Your task to perform on an android device: manage bookmarks in the chrome app Image 0: 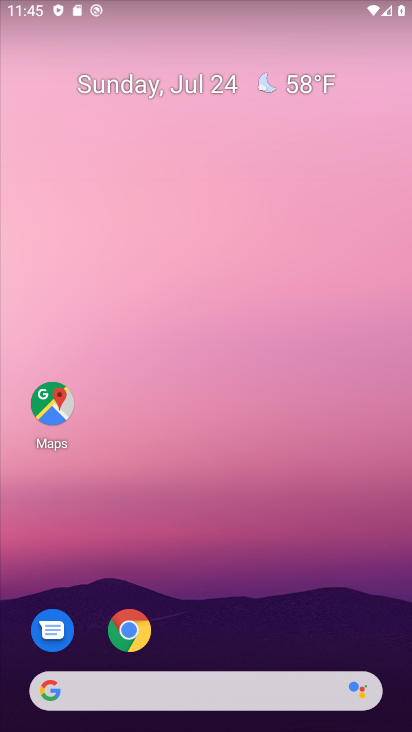
Step 0: drag from (229, 492) to (176, 210)
Your task to perform on an android device: manage bookmarks in the chrome app Image 1: 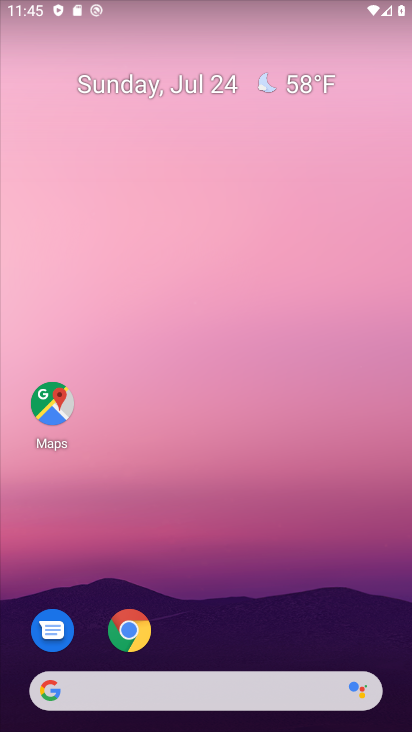
Step 1: drag from (304, 643) to (294, 17)
Your task to perform on an android device: manage bookmarks in the chrome app Image 2: 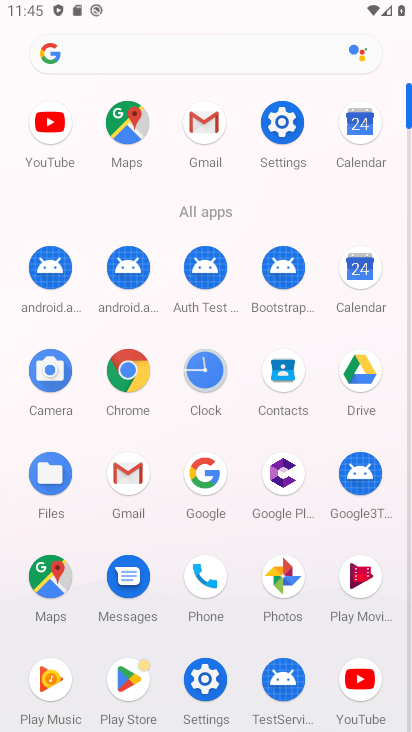
Step 2: click (132, 378)
Your task to perform on an android device: manage bookmarks in the chrome app Image 3: 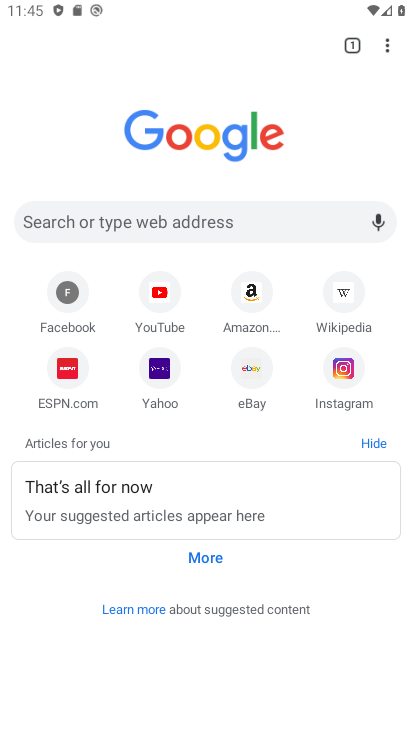
Step 3: click (394, 40)
Your task to perform on an android device: manage bookmarks in the chrome app Image 4: 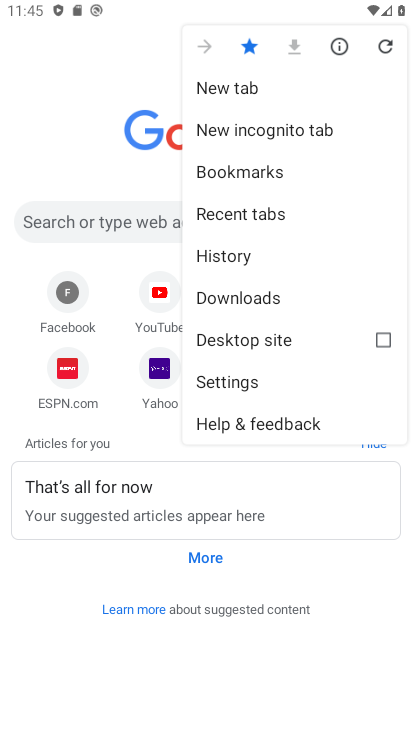
Step 4: click (285, 172)
Your task to perform on an android device: manage bookmarks in the chrome app Image 5: 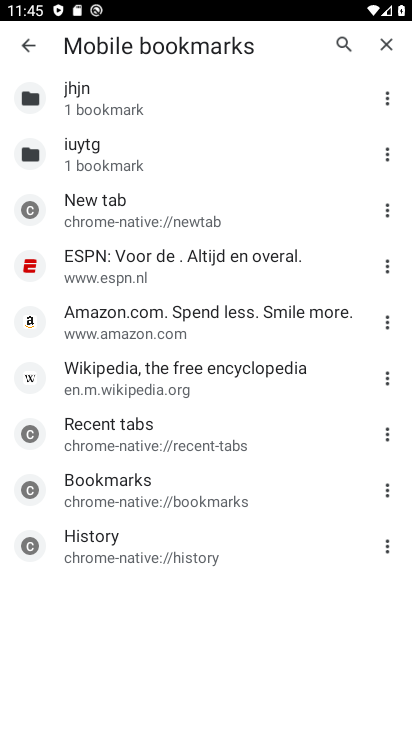
Step 5: click (207, 258)
Your task to perform on an android device: manage bookmarks in the chrome app Image 6: 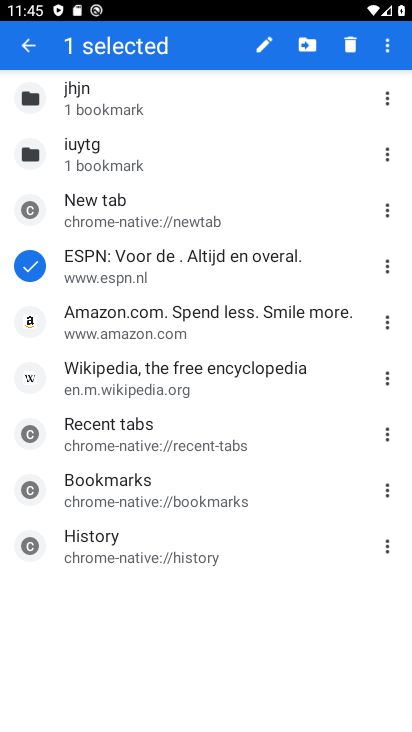
Step 6: click (308, 51)
Your task to perform on an android device: manage bookmarks in the chrome app Image 7: 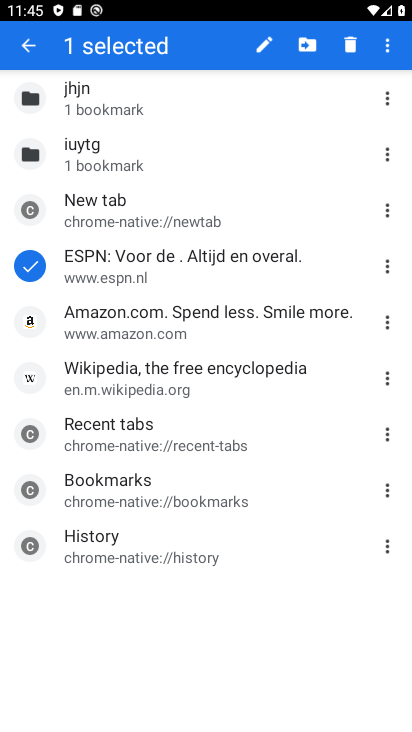
Step 7: click (308, 51)
Your task to perform on an android device: manage bookmarks in the chrome app Image 8: 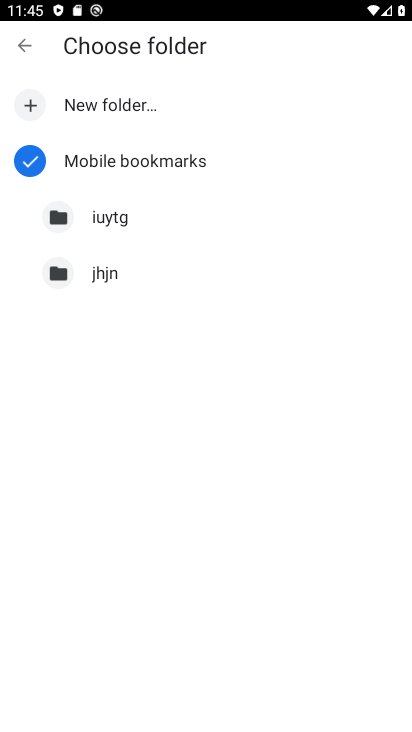
Step 8: click (149, 214)
Your task to perform on an android device: manage bookmarks in the chrome app Image 9: 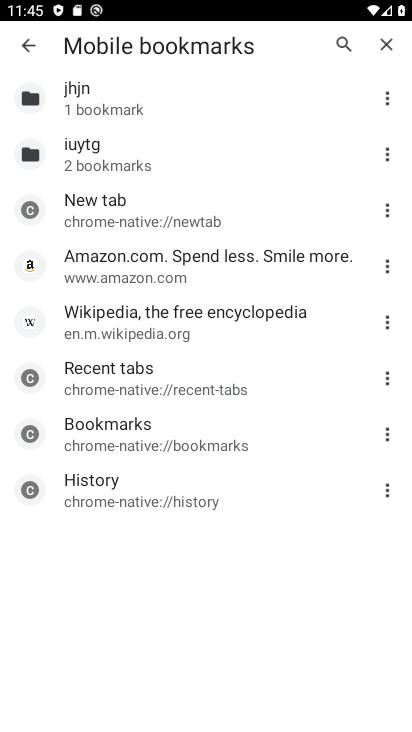
Step 9: task complete